Your task to perform on an android device: set the stopwatch Image 0: 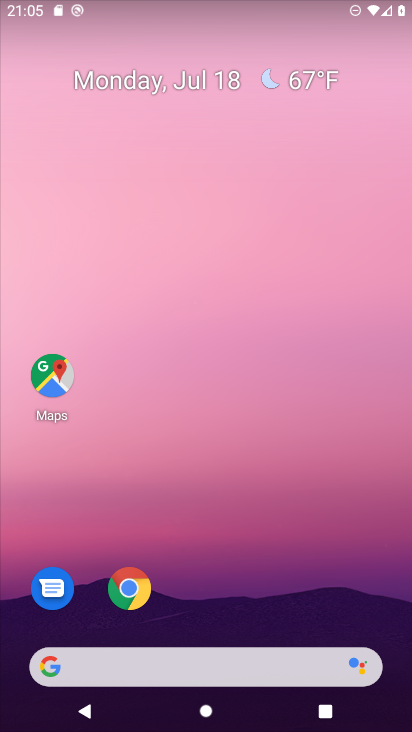
Step 0: drag from (279, 600) to (219, 145)
Your task to perform on an android device: set the stopwatch Image 1: 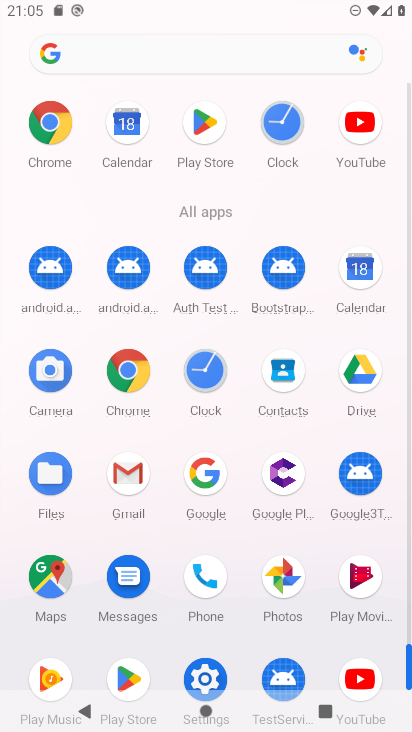
Step 1: click (206, 372)
Your task to perform on an android device: set the stopwatch Image 2: 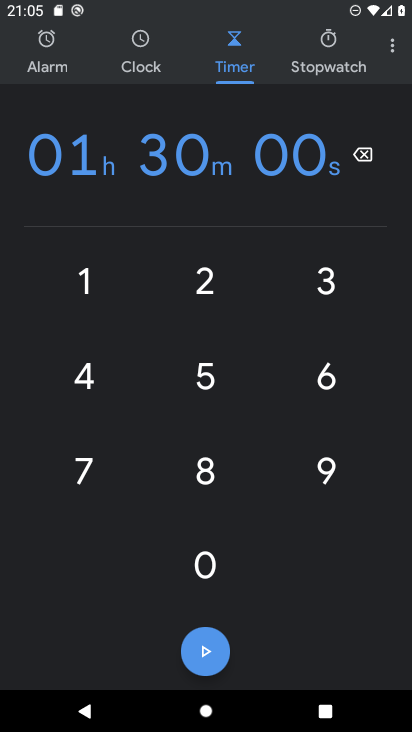
Step 2: click (326, 52)
Your task to perform on an android device: set the stopwatch Image 3: 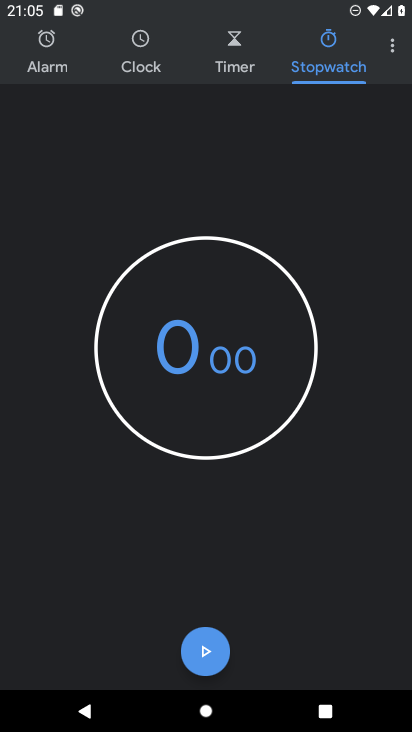
Step 3: task complete